Your task to perform on an android device: Clear the shopping cart on costco. Add logitech g910 to the cart on costco, then select checkout. Image 0: 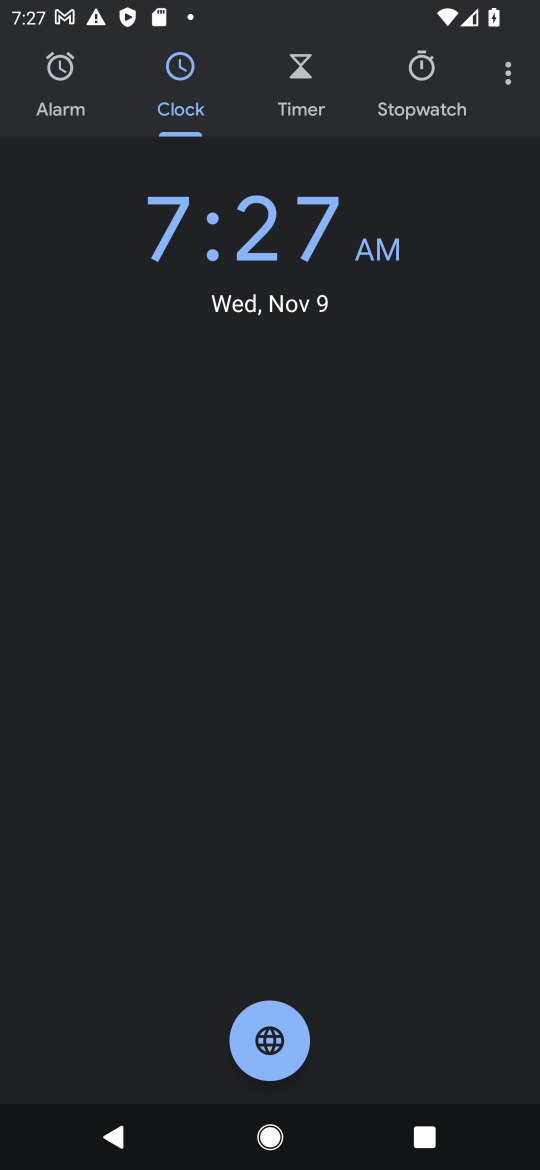
Step 0: press home button
Your task to perform on an android device: Clear the shopping cart on costco. Add logitech g910 to the cart on costco, then select checkout. Image 1: 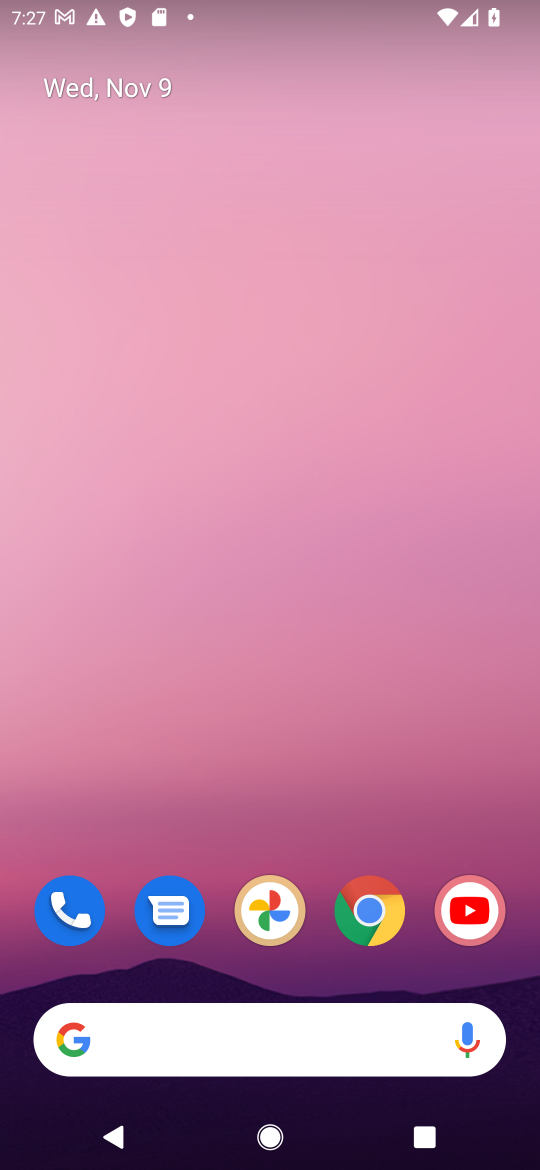
Step 1: click (363, 915)
Your task to perform on an android device: Clear the shopping cart on costco. Add logitech g910 to the cart on costco, then select checkout. Image 2: 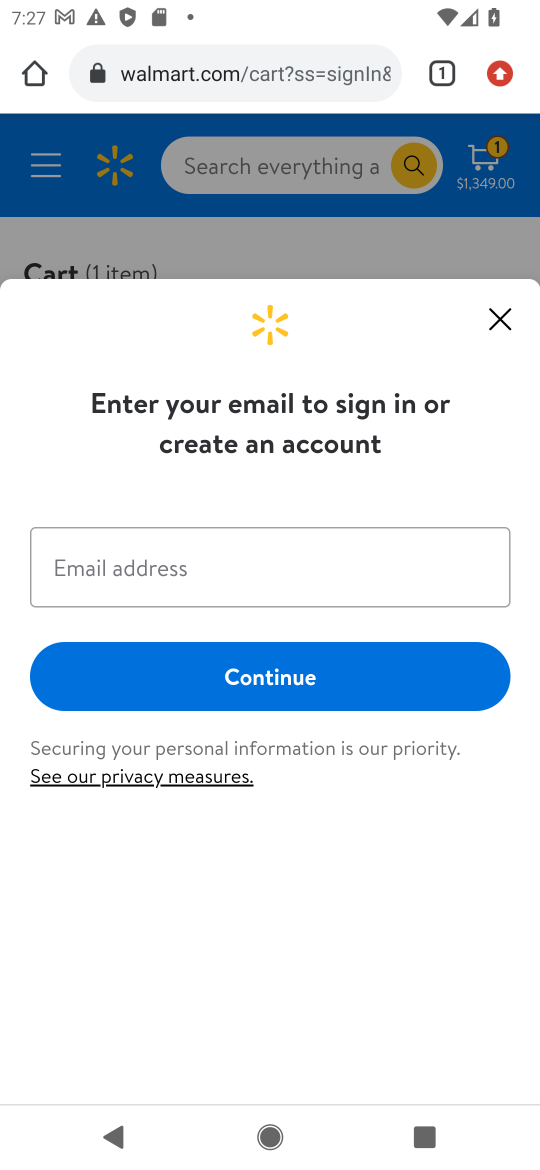
Step 2: click (233, 78)
Your task to perform on an android device: Clear the shopping cart on costco. Add logitech g910 to the cart on costco, then select checkout. Image 3: 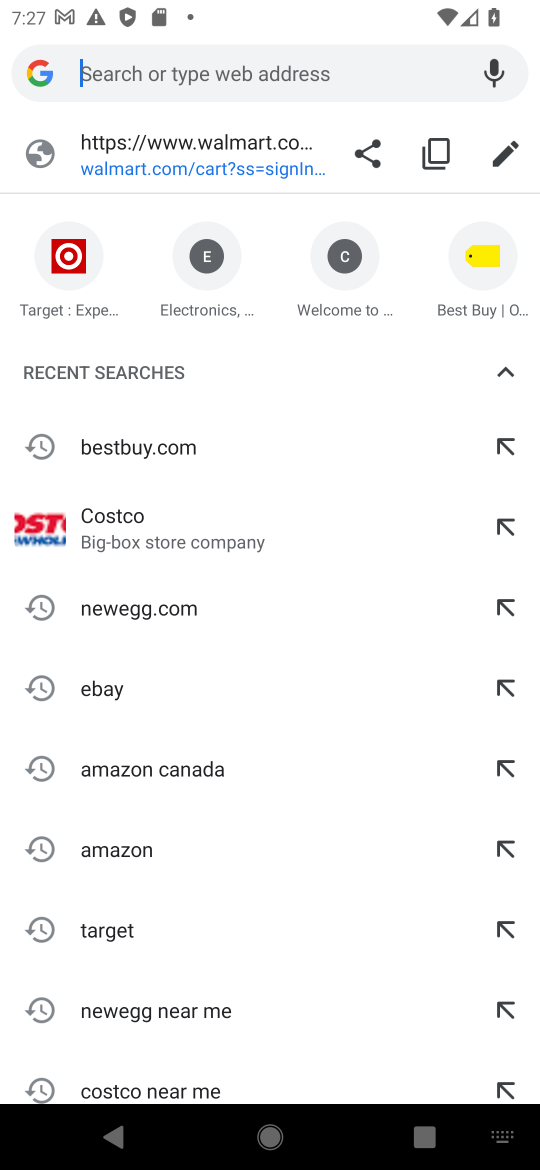
Step 3: type "costco.com"
Your task to perform on an android device: Clear the shopping cart on costco. Add logitech g910 to the cart on costco, then select checkout. Image 4: 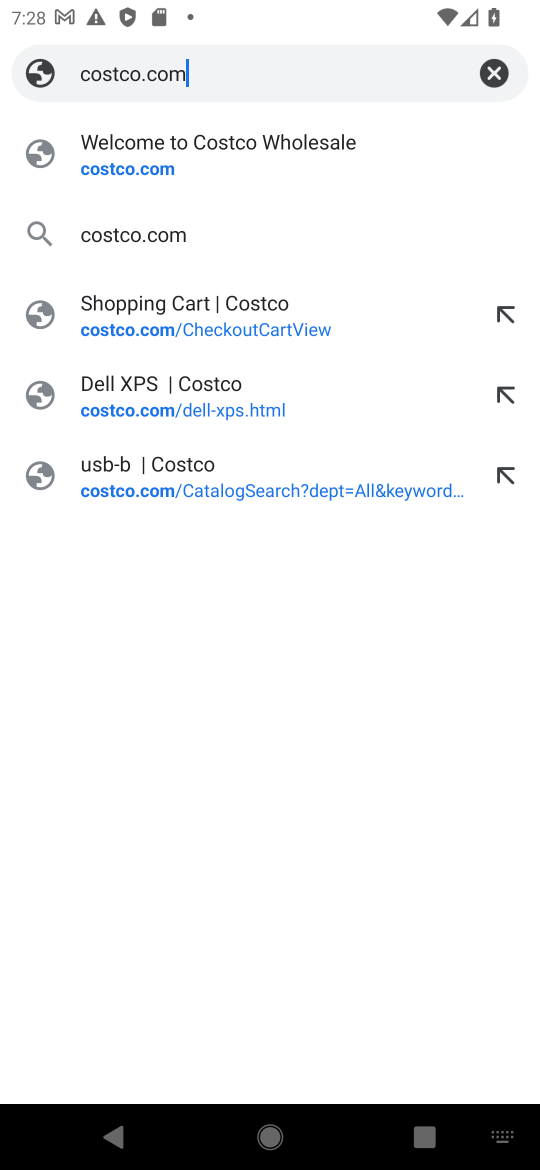
Step 4: click (131, 171)
Your task to perform on an android device: Clear the shopping cart on costco. Add logitech g910 to the cart on costco, then select checkout. Image 5: 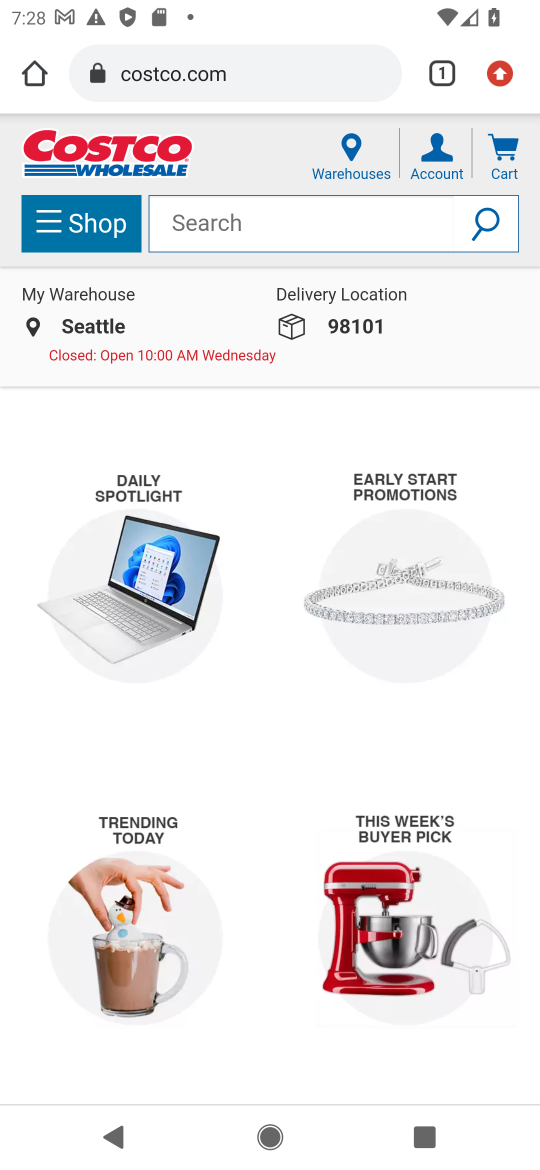
Step 5: click (496, 163)
Your task to perform on an android device: Clear the shopping cart on costco. Add logitech g910 to the cart on costco, then select checkout. Image 6: 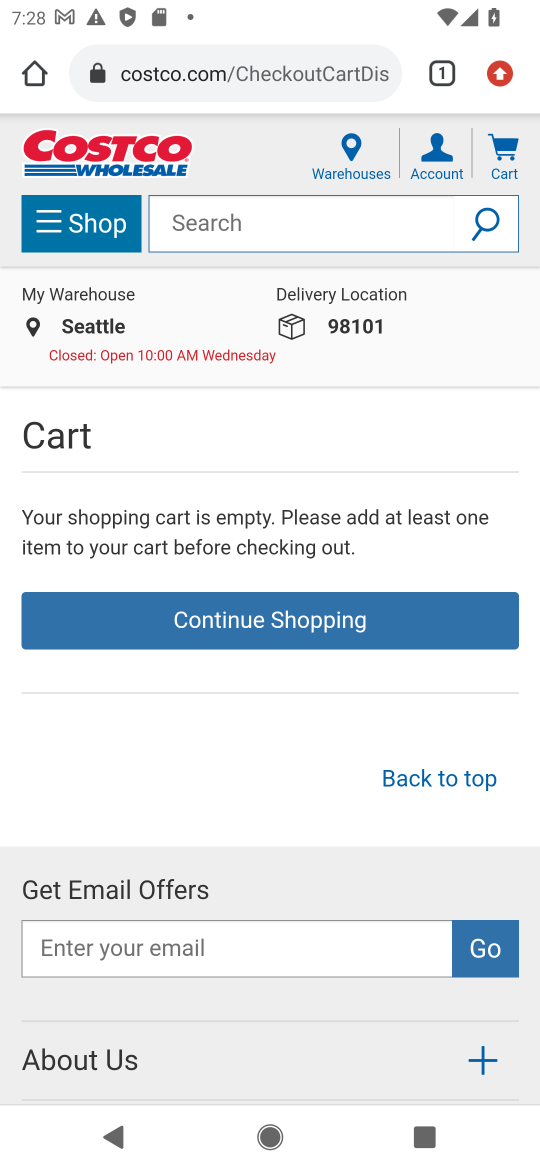
Step 6: click (271, 209)
Your task to perform on an android device: Clear the shopping cart on costco. Add logitech g910 to the cart on costco, then select checkout. Image 7: 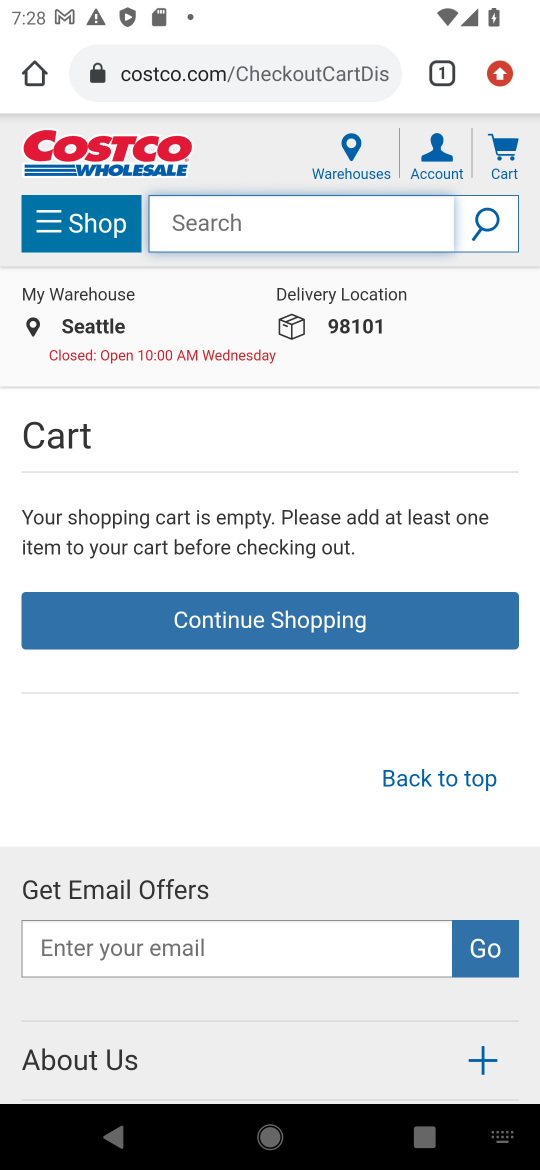
Step 7: type "logitech g910 "
Your task to perform on an android device: Clear the shopping cart on costco. Add logitech g910 to the cart on costco, then select checkout. Image 8: 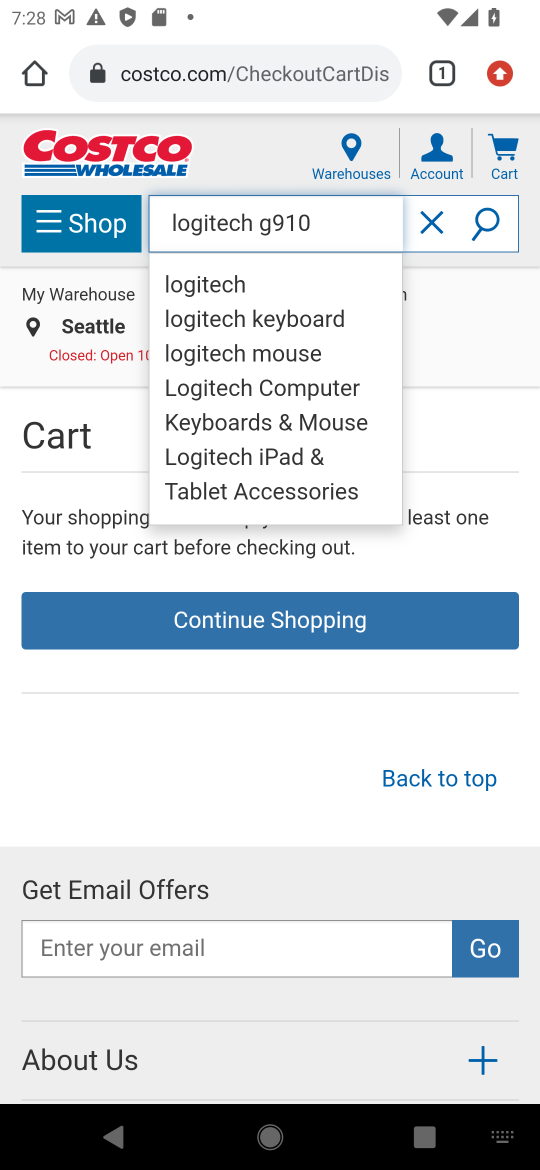
Step 8: click (475, 220)
Your task to perform on an android device: Clear the shopping cart on costco. Add logitech g910 to the cart on costco, then select checkout. Image 9: 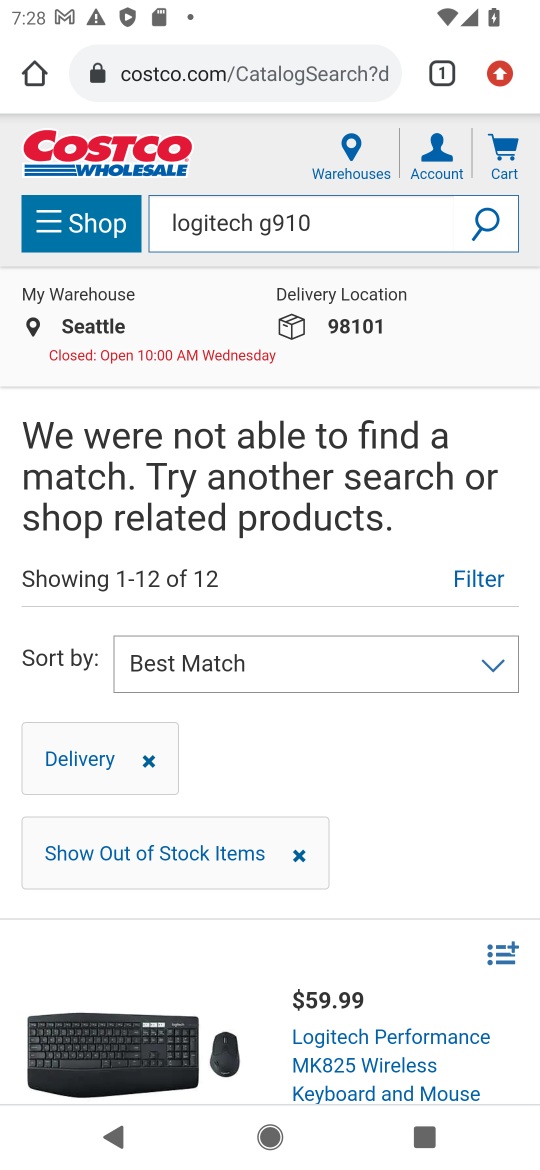
Step 9: task complete